Your task to perform on an android device: Open settings Image 0: 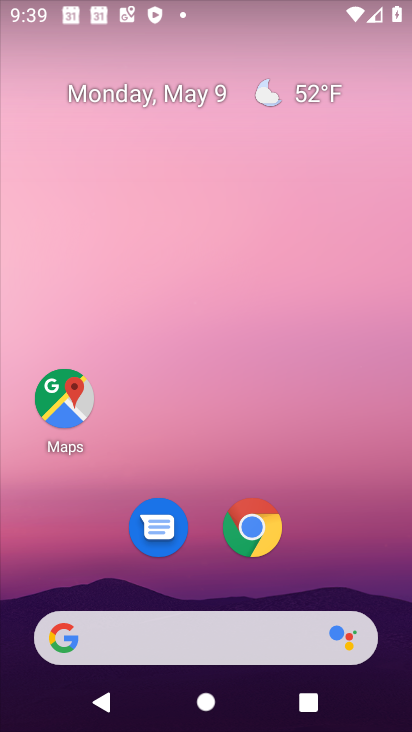
Step 0: drag from (208, 561) to (156, 74)
Your task to perform on an android device: Open settings Image 1: 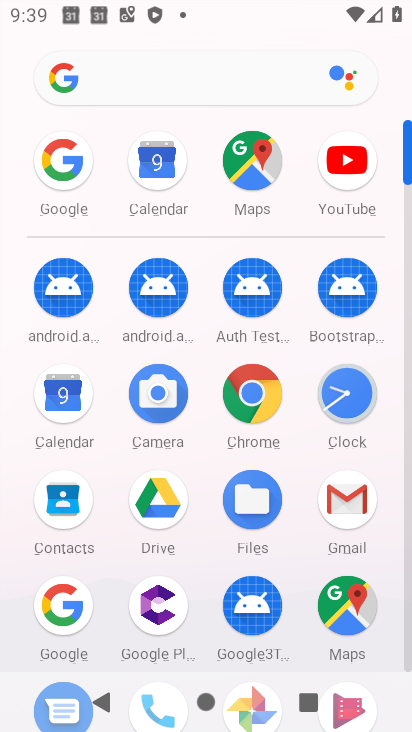
Step 1: drag from (206, 600) to (176, 40)
Your task to perform on an android device: Open settings Image 2: 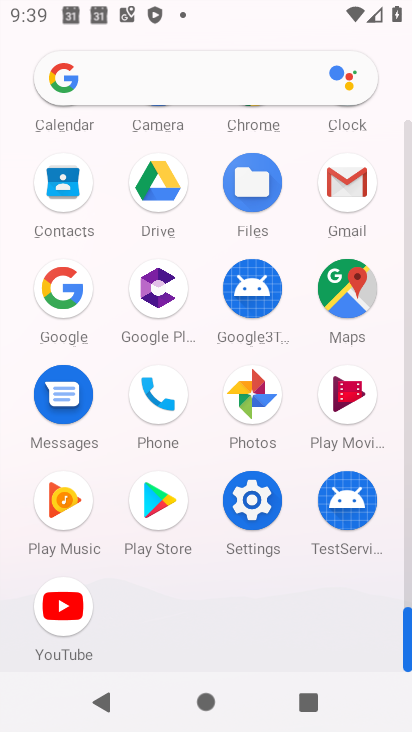
Step 2: click (244, 500)
Your task to perform on an android device: Open settings Image 3: 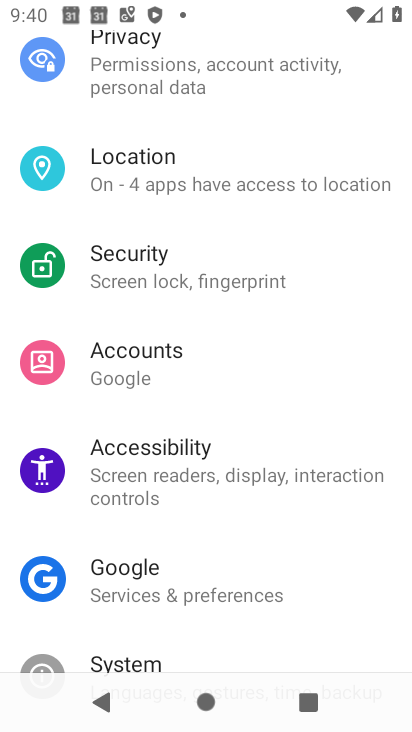
Step 3: task complete